Your task to perform on an android device: check storage Image 0: 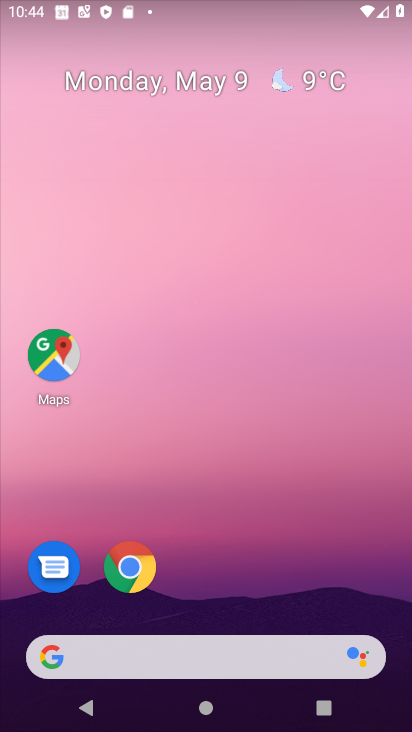
Step 0: drag from (196, 616) to (206, 561)
Your task to perform on an android device: check storage Image 1: 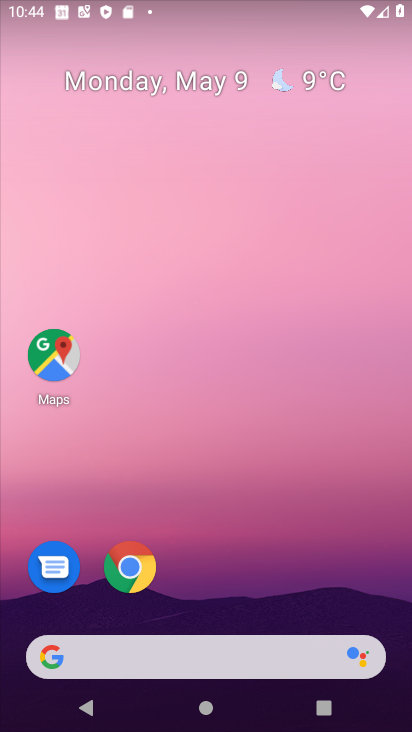
Step 1: click (219, 13)
Your task to perform on an android device: check storage Image 2: 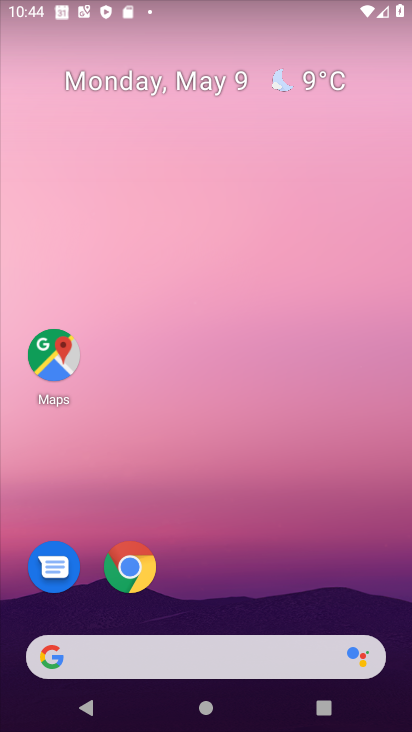
Step 2: drag from (226, 610) to (238, 29)
Your task to perform on an android device: check storage Image 3: 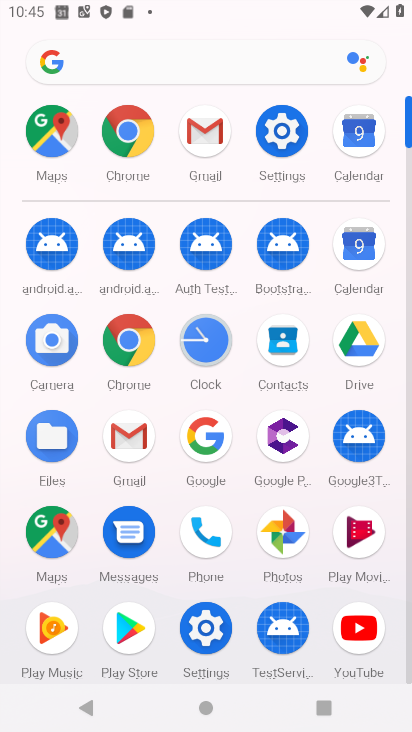
Step 3: click (205, 619)
Your task to perform on an android device: check storage Image 4: 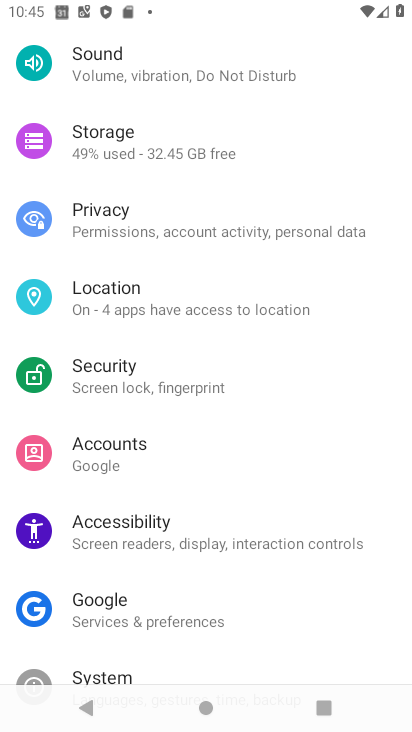
Step 4: click (150, 137)
Your task to perform on an android device: check storage Image 5: 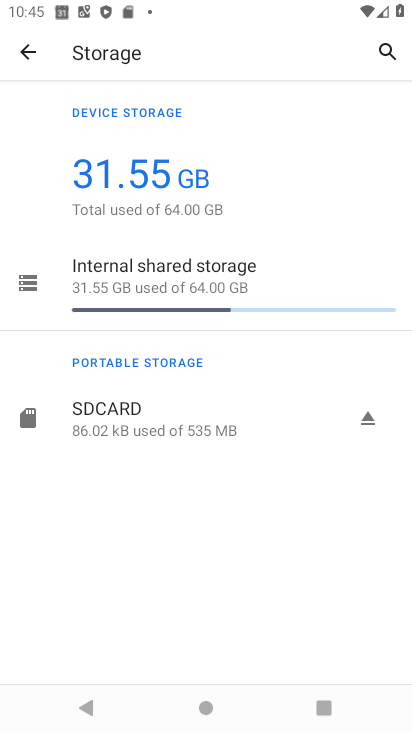
Step 5: task complete